Your task to perform on an android device: uninstall "Upside-Cash back on gas & food" Image 0: 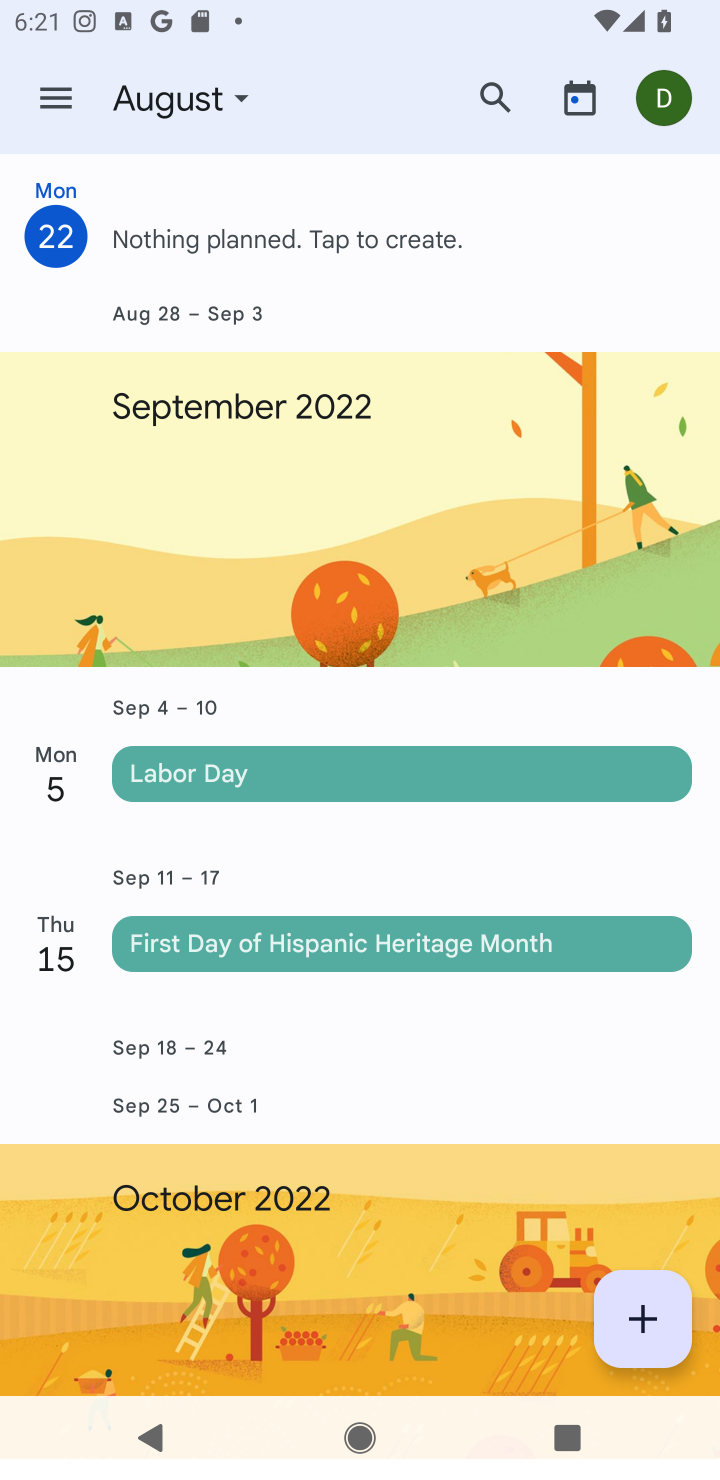
Step 0: press home button
Your task to perform on an android device: uninstall "Upside-Cash back on gas & food" Image 1: 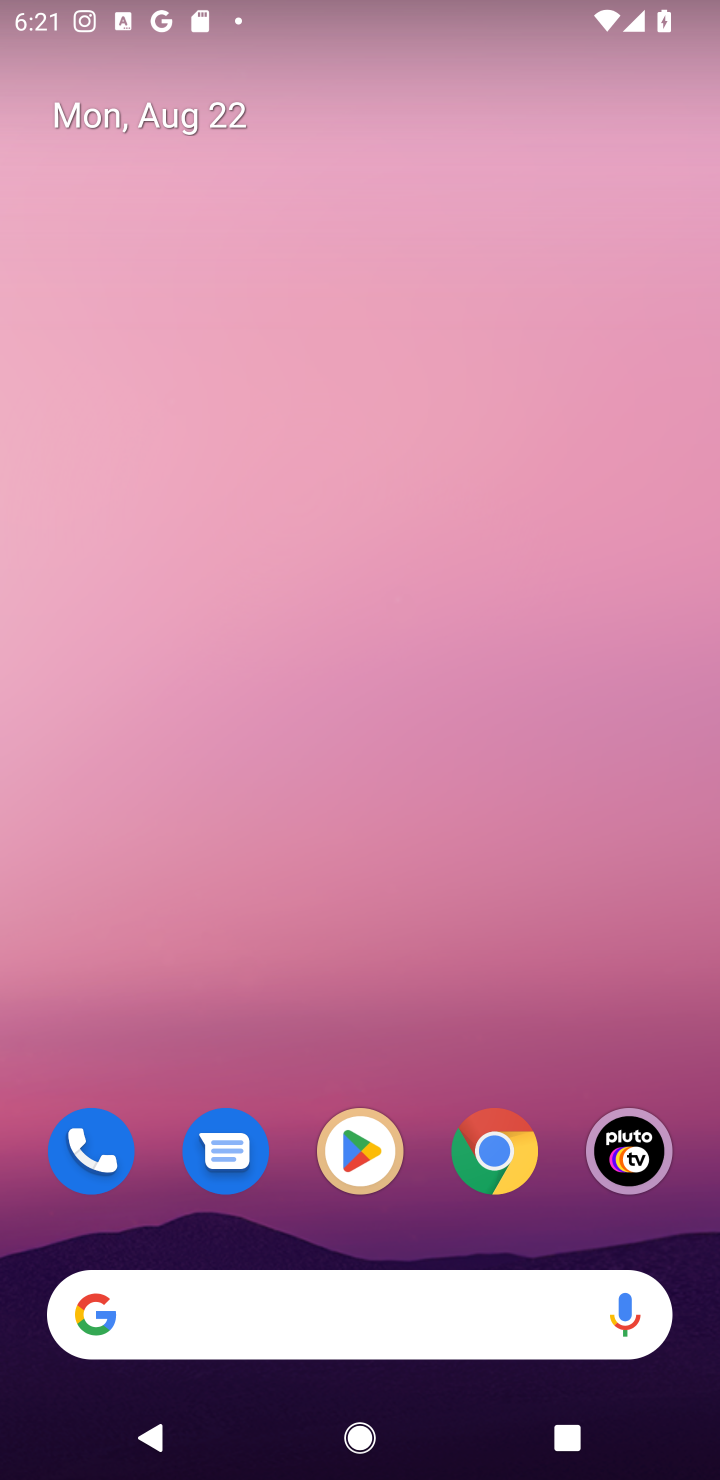
Step 1: click (357, 1156)
Your task to perform on an android device: uninstall "Upside-Cash back on gas & food" Image 2: 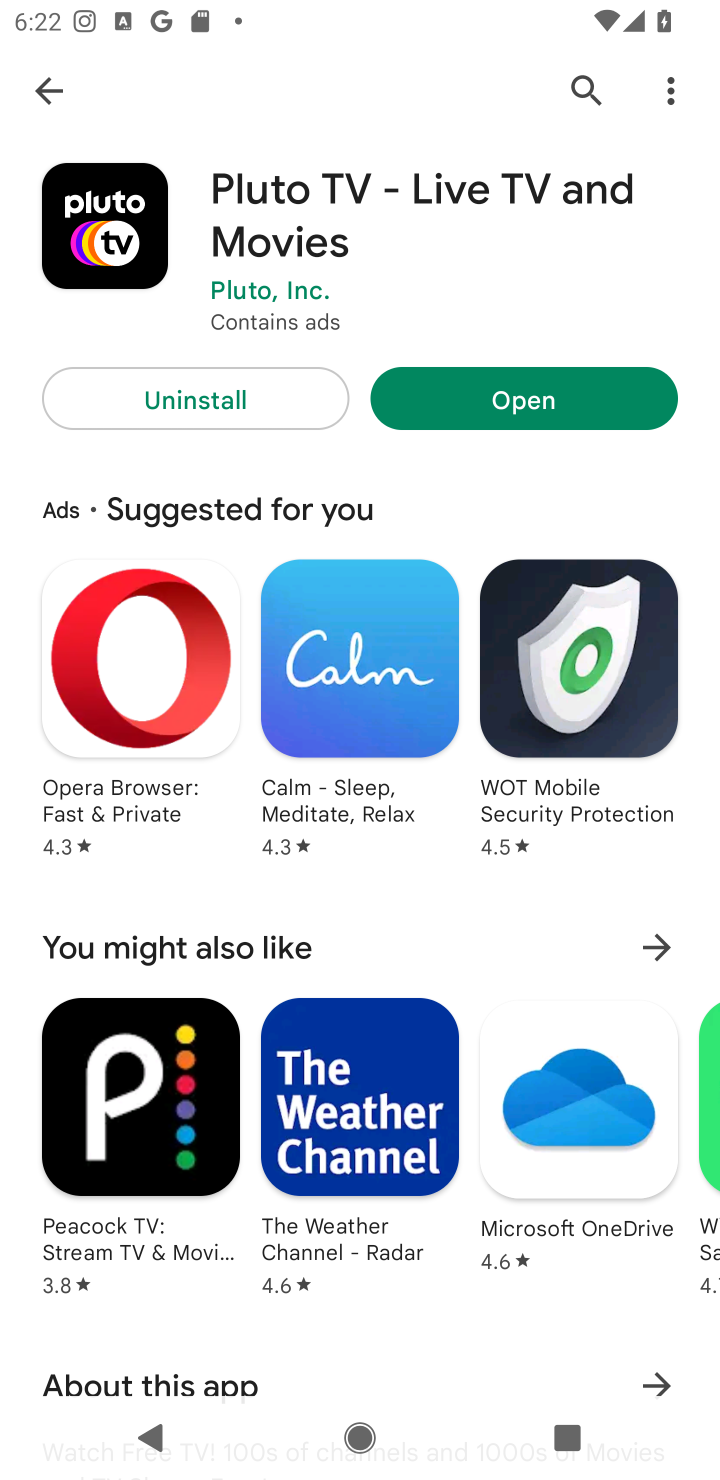
Step 2: click (571, 87)
Your task to perform on an android device: uninstall "Upside-Cash back on gas & food" Image 3: 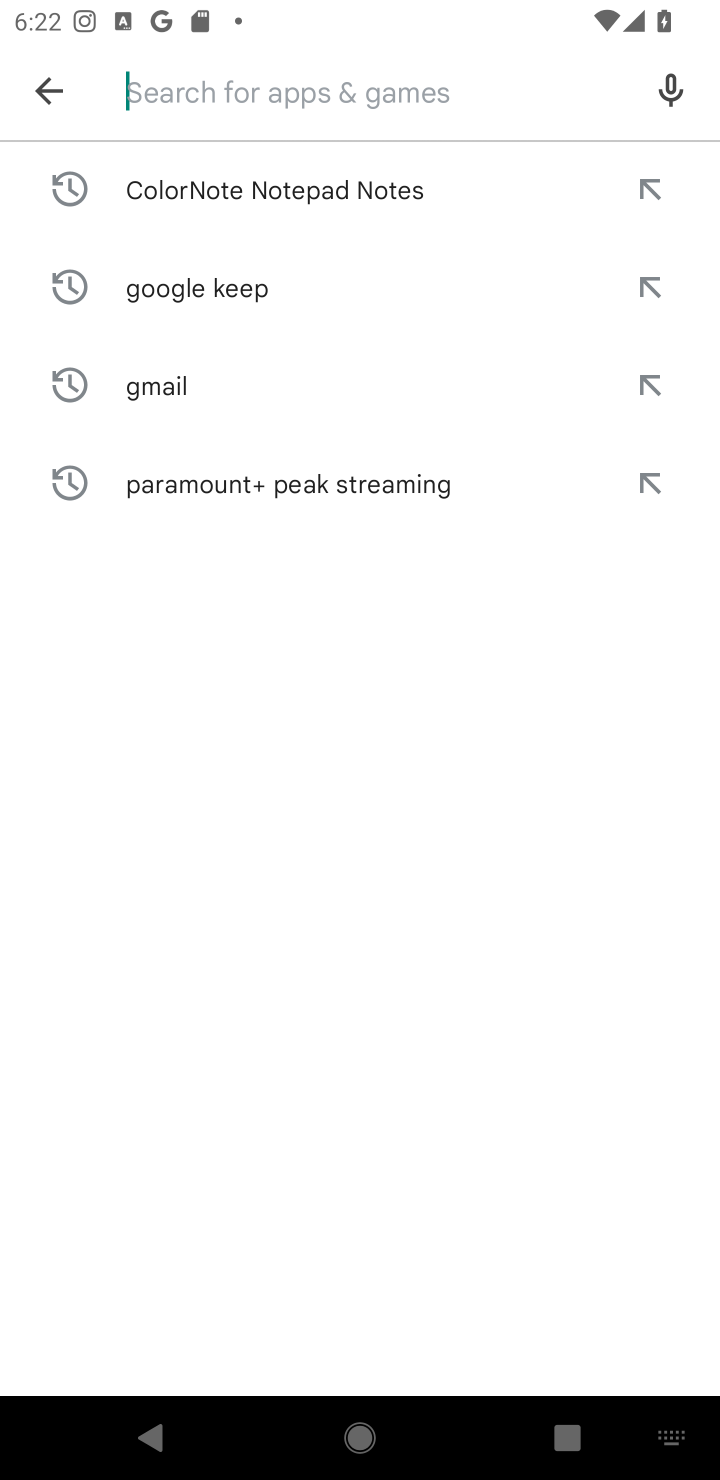
Step 3: type "Upside-Cash back on gas & food"
Your task to perform on an android device: uninstall "Upside-Cash back on gas & food" Image 4: 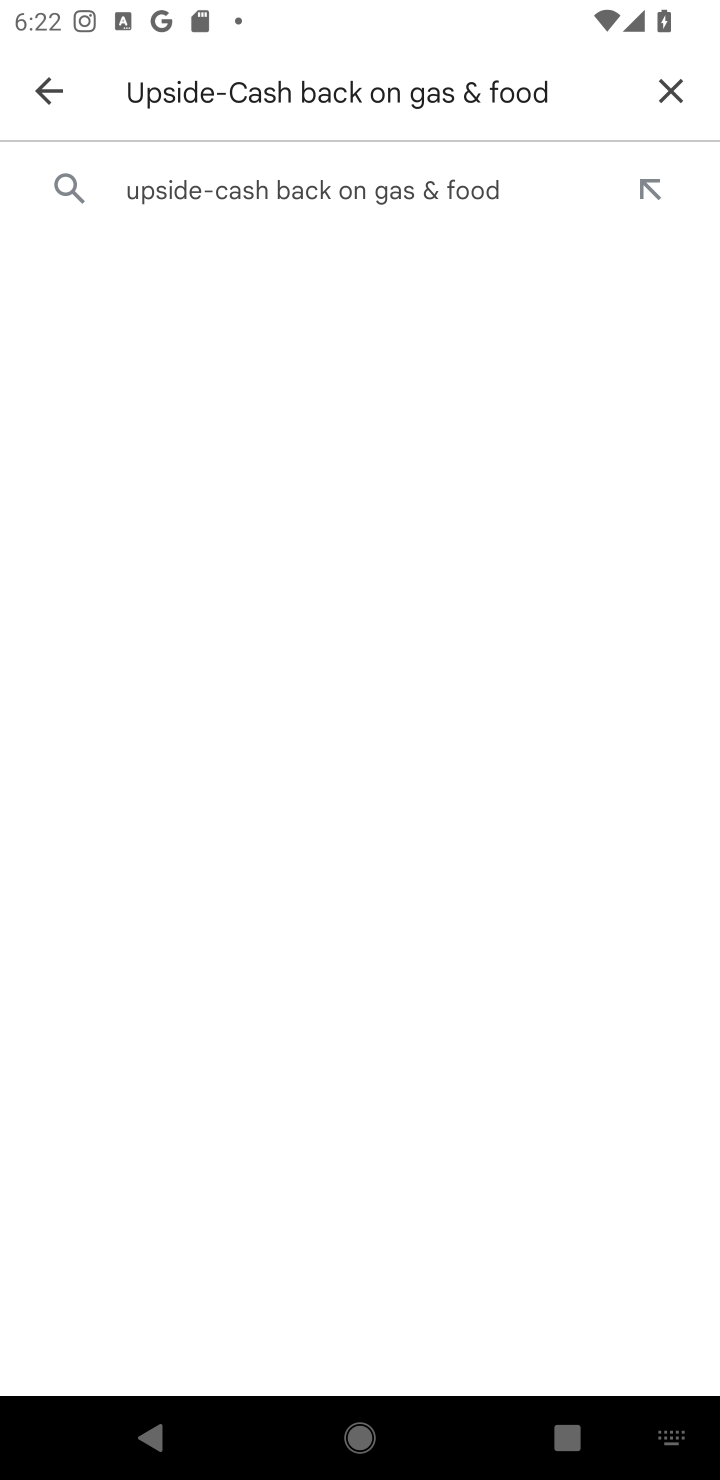
Step 4: click (224, 186)
Your task to perform on an android device: uninstall "Upside-Cash back on gas & food" Image 5: 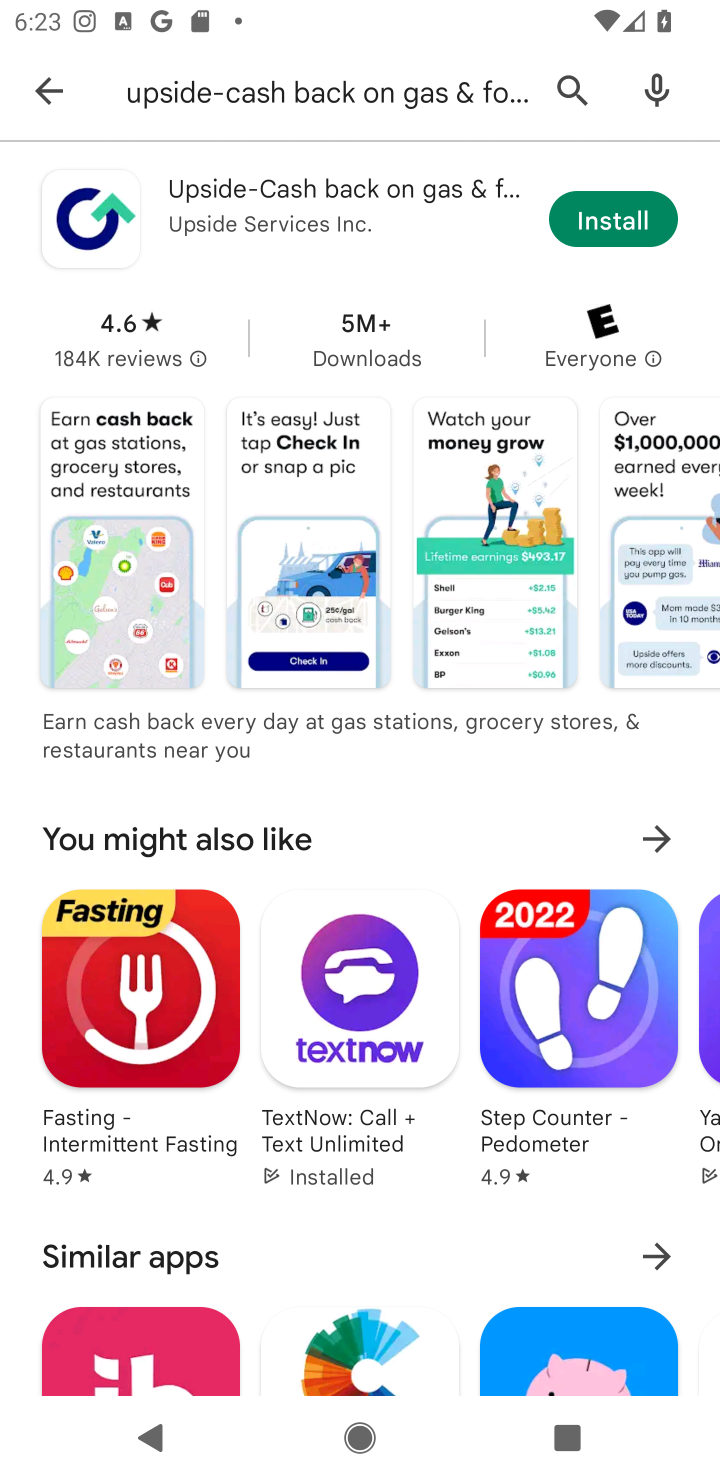
Step 5: task complete